Your task to perform on an android device: turn on notifications settings in the gmail app Image 0: 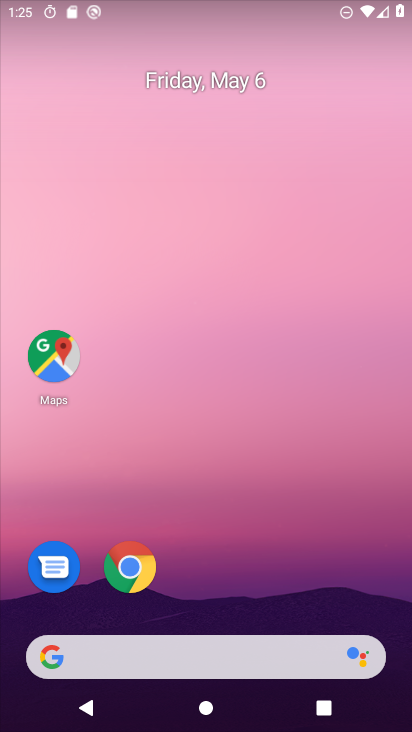
Step 0: drag from (284, 658) to (247, 187)
Your task to perform on an android device: turn on notifications settings in the gmail app Image 1: 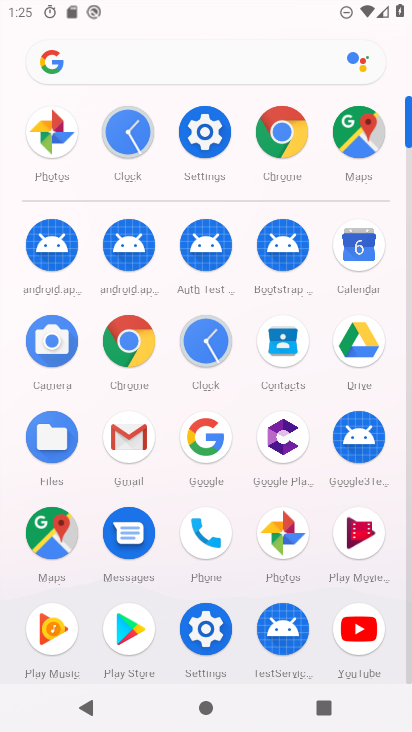
Step 1: click (132, 431)
Your task to perform on an android device: turn on notifications settings in the gmail app Image 2: 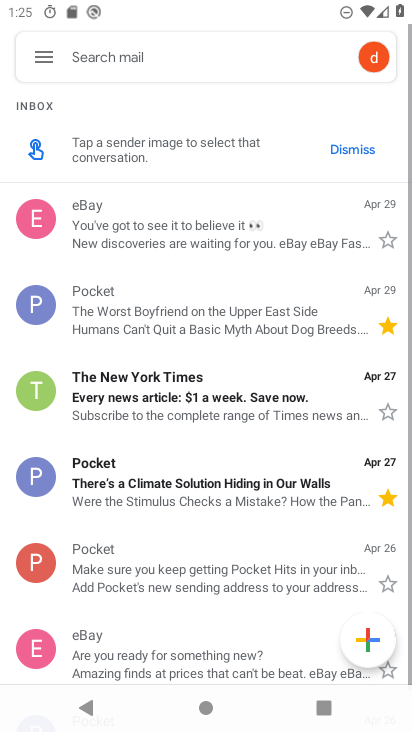
Step 2: click (344, 150)
Your task to perform on an android device: turn on notifications settings in the gmail app Image 3: 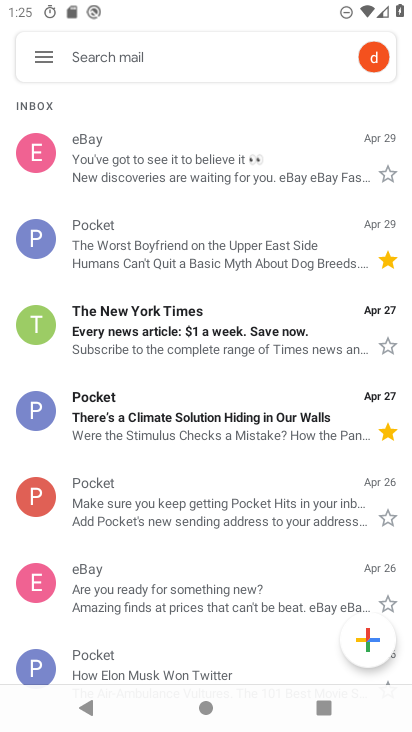
Step 3: click (47, 48)
Your task to perform on an android device: turn on notifications settings in the gmail app Image 4: 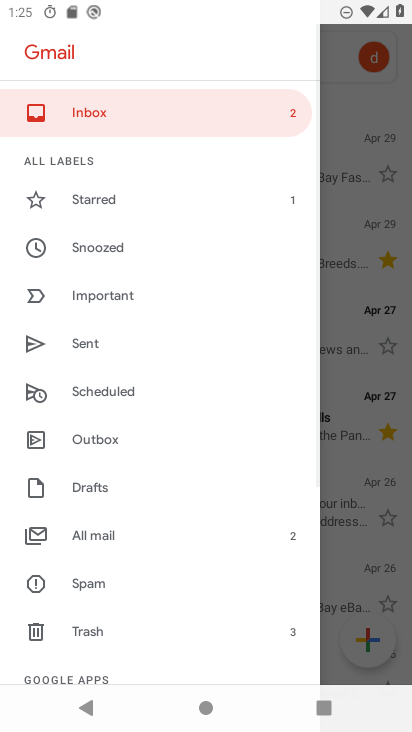
Step 4: drag from (103, 597) to (204, 441)
Your task to perform on an android device: turn on notifications settings in the gmail app Image 5: 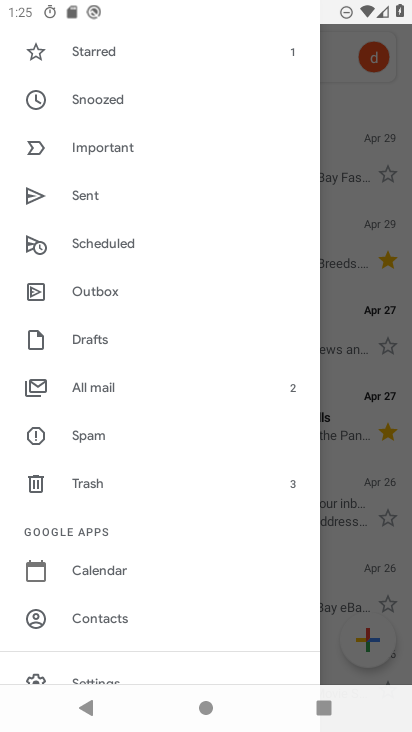
Step 5: drag from (142, 597) to (175, 517)
Your task to perform on an android device: turn on notifications settings in the gmail app Image 6: 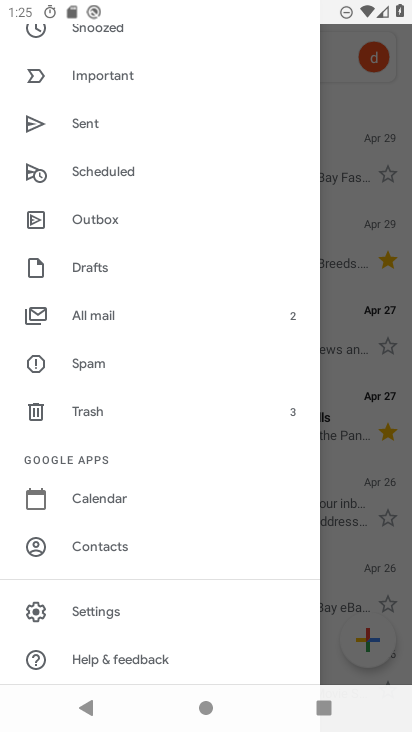
Step 6: click (129, 606)
Your task to perform on an android device: turn on notifications settings in the gmail app Image 7: 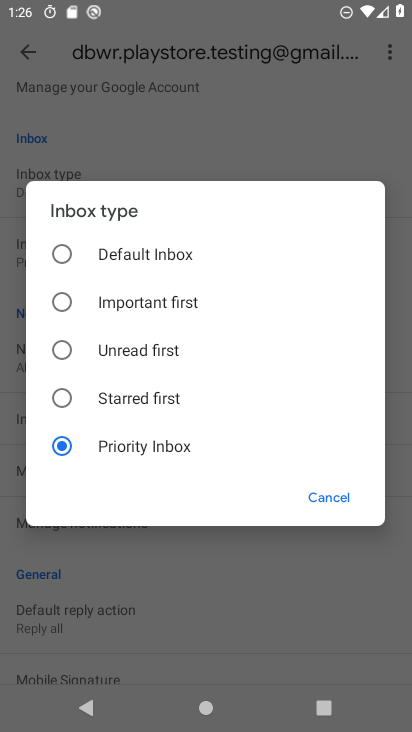
Step 7: click (323, 498)
Your task to perform on an android device: turn on notifications settings in the gmail app Image 8: 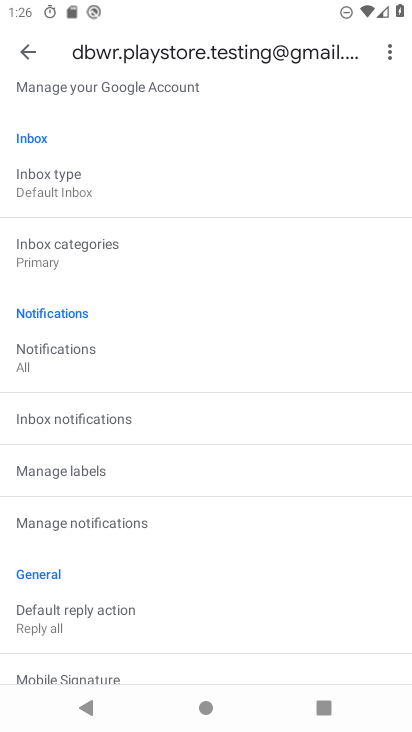
Step 8: click (90, 364)
Your task to perform on an android device: turn on notifications settings in the gmail app Image 9: 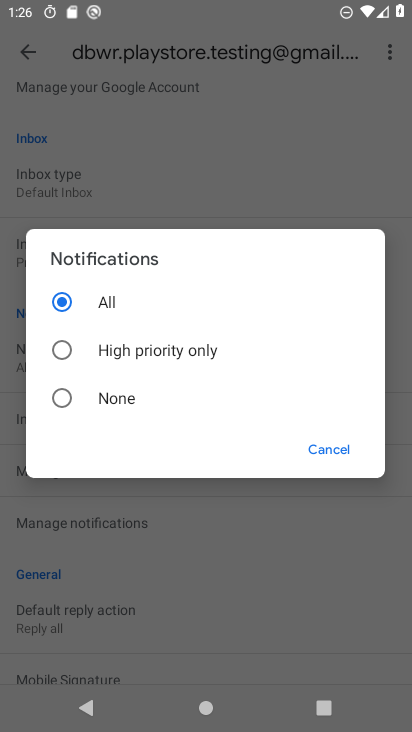
Step 9: task complete